Your task to perform on an android device: Turn off the flashlight Image 0: 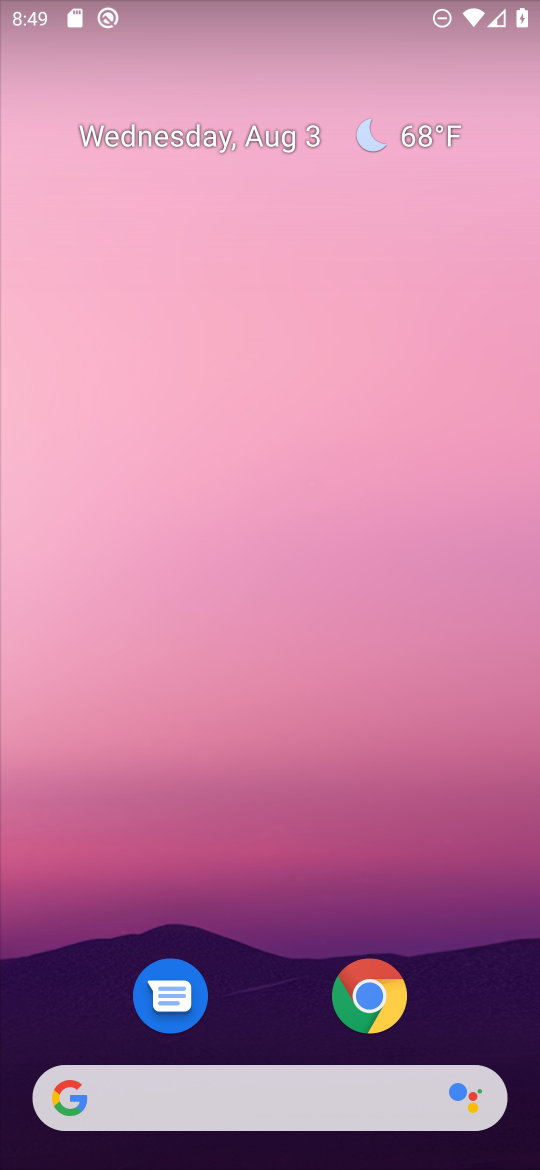
Step 0: drag from (292, 867) to (290, 0)
Your task to perform on an android device: Turn off the flashlight Image 1: 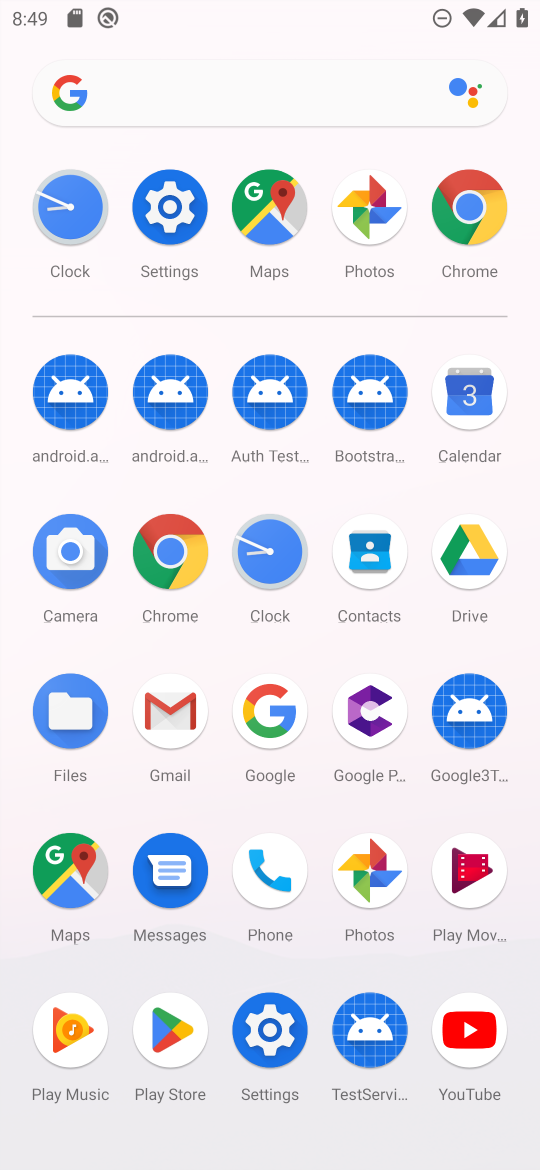
Step 1: click (182, 220)
Your task to perform on an android device: Turn off the flashlight Image 2: 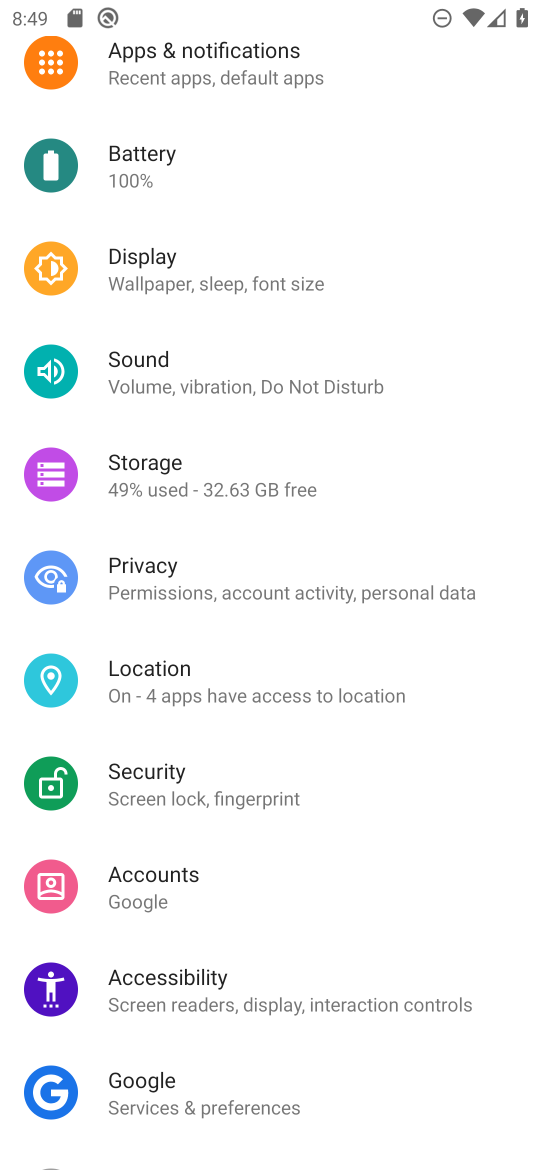
Step 2: drag from (262, 195) to (317, 954)
Your task to perform on an android device: Turn off the flashlight Image 3: 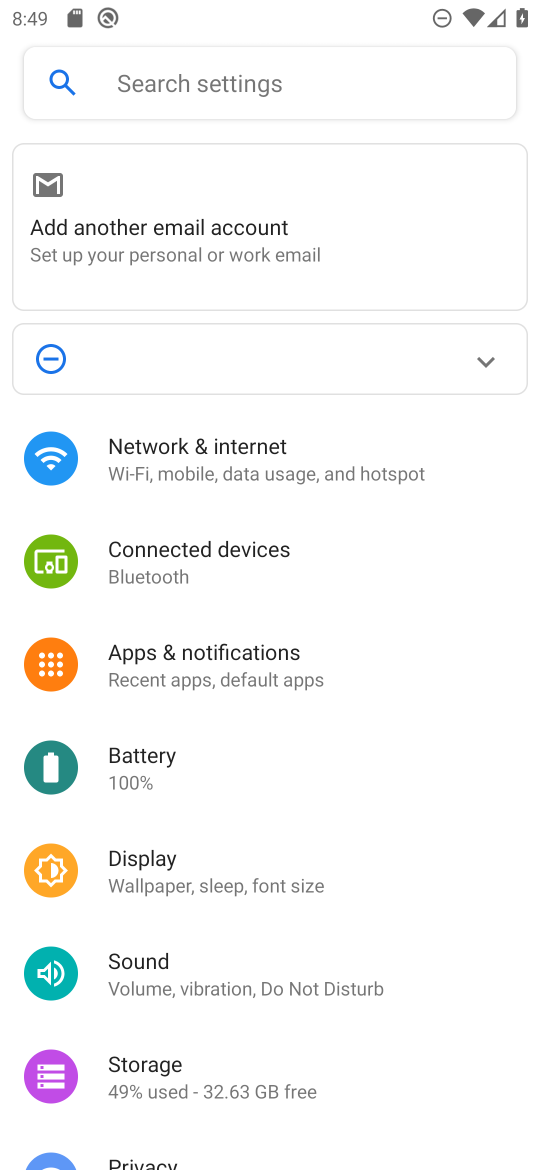
Step 3: click (327, 62)
Your task to perform on an android device: Turn off the flashlight Image 4: 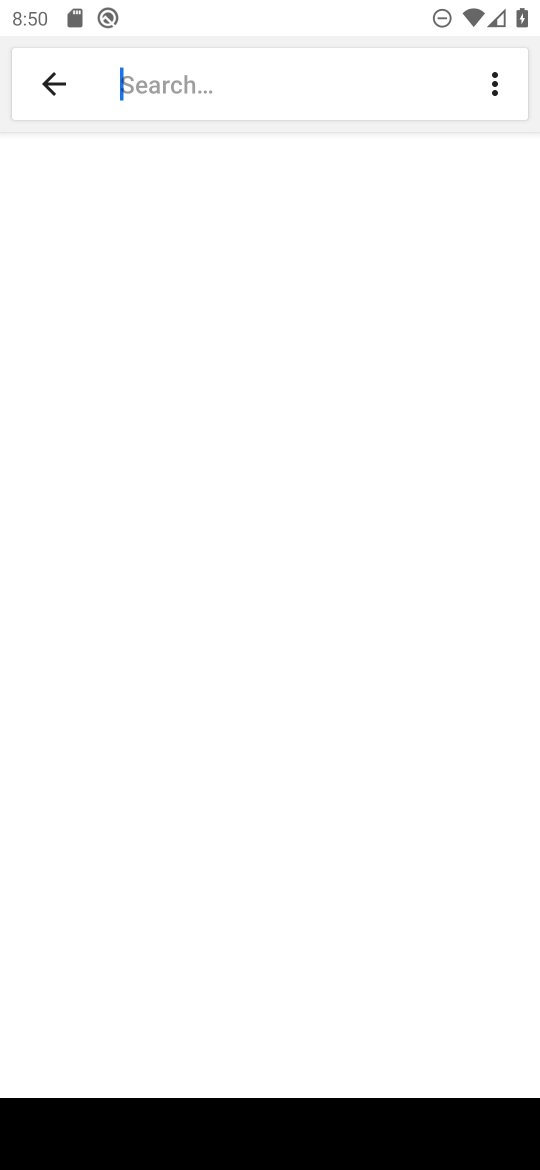
Step 4: type "Flashlight"
Your task to perform on an android device: Turn off the flashlight Image 5: 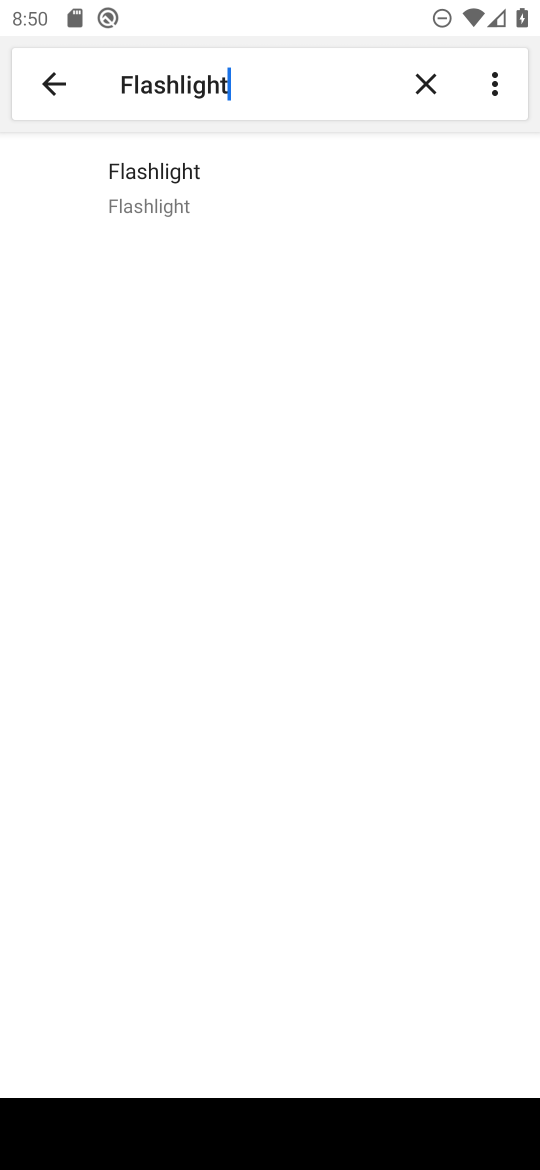
Step 5: click (180, 181)
Your task to perform on an android device: Turn off the flashlight Image 6: 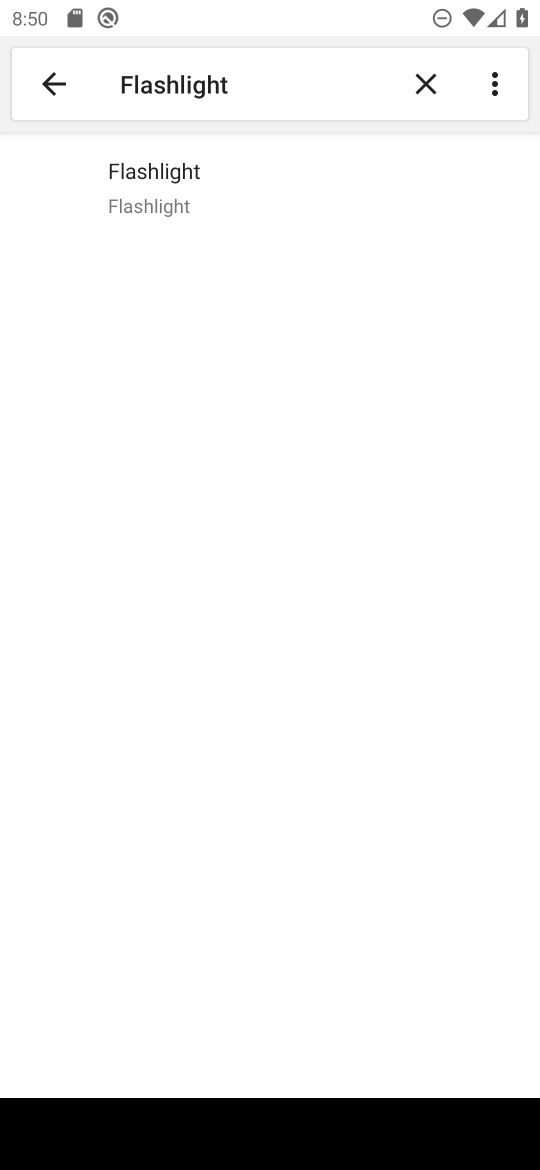
Step 6: task complete